Your task to perform on an android device: turn smart compose on in the gmail app Image 0: 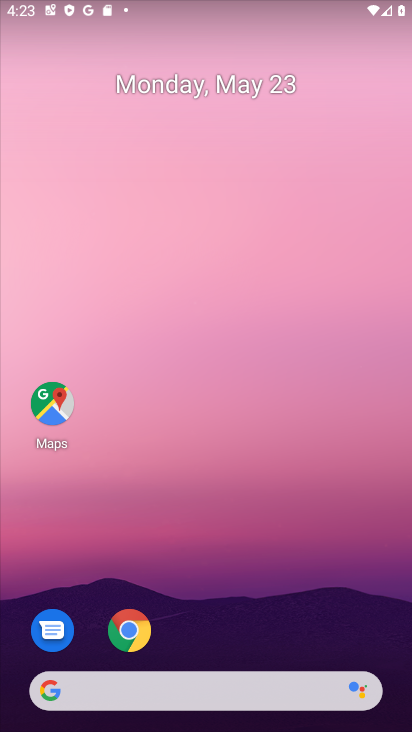
Step 0: press home button
Your task to perform on an android device: turn smart compose on in the gmail app Image 1: 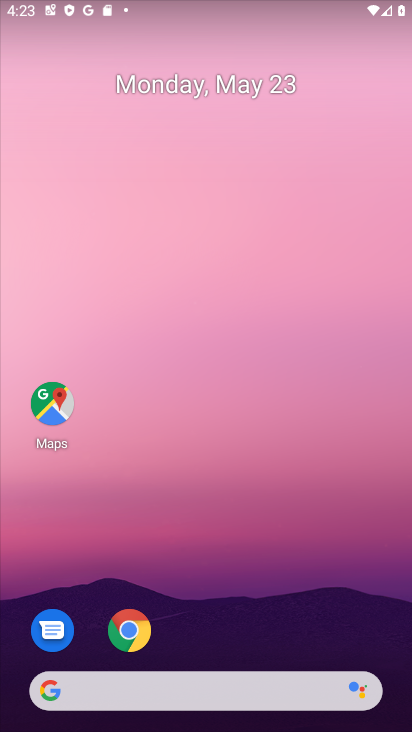
Step 1: drag from (217, 651) to (214, 23)
Your task to perform on an android device: turn smart compose on in the gmail app Image 2: 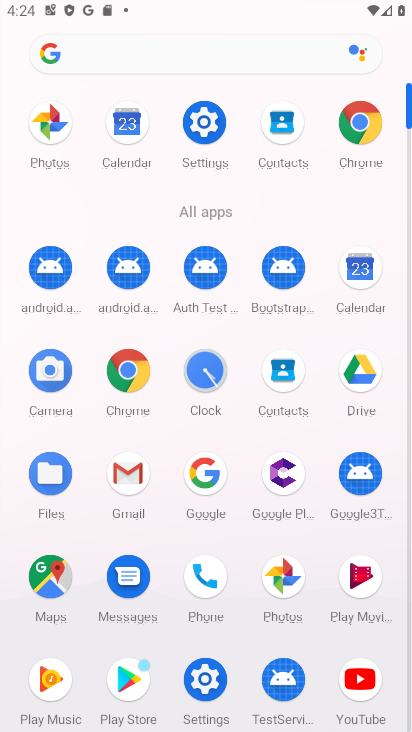
Step 2: click (126, 465)
Your task to perform on an android device: turn smart compose on in the gmail app Image 3: 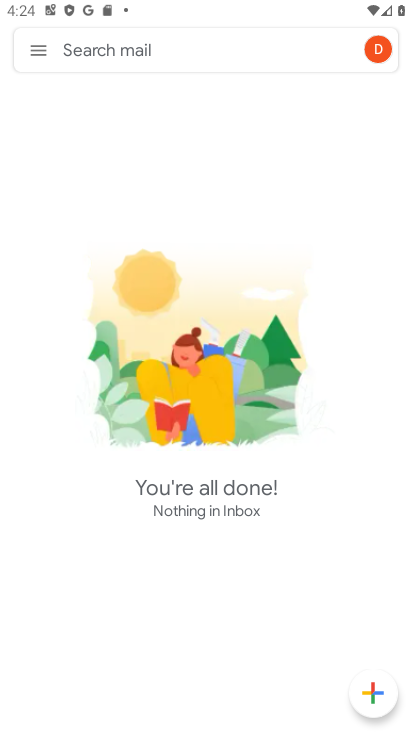
Step 3: click (29, 45)
Your task to perform on an android device: turn smart compose on in the gmail app Image 4: 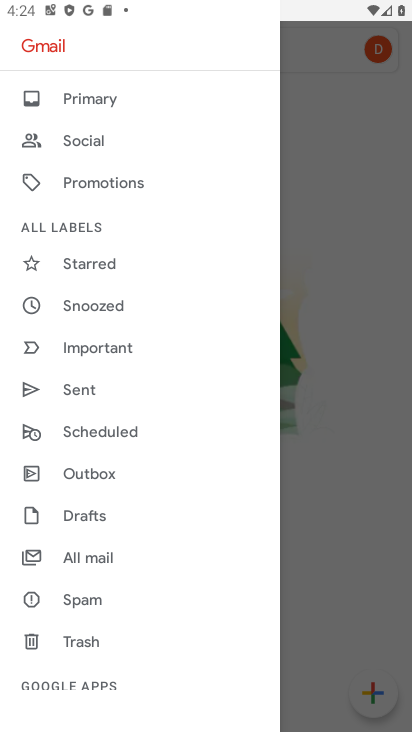
Step 4: drag from (163, 618) to (160, 128)
Your task to perform on an android device: turn smart compose on in the gmail app Image 5: 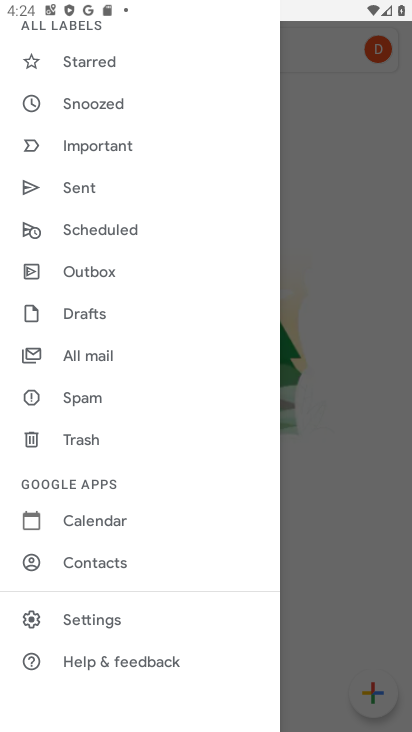
Step 5: click (128, 613)
Your task to perform on an android device: turn smart compose on in the gmail app Image 6: 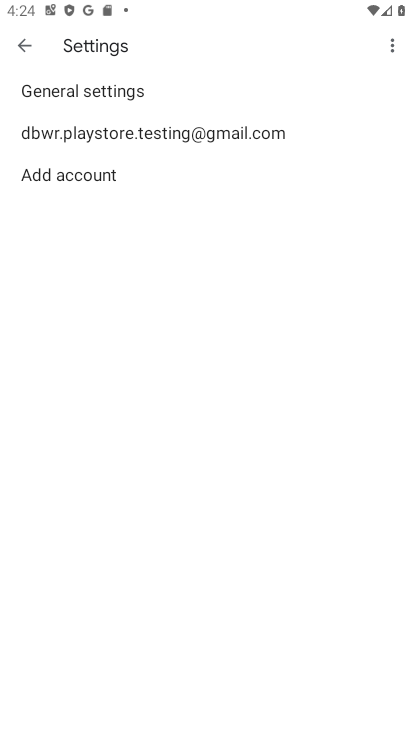
Step 6: click (259, 132)
Your task to perform on an android device: turn smart compose on in the gmail app Image 7: 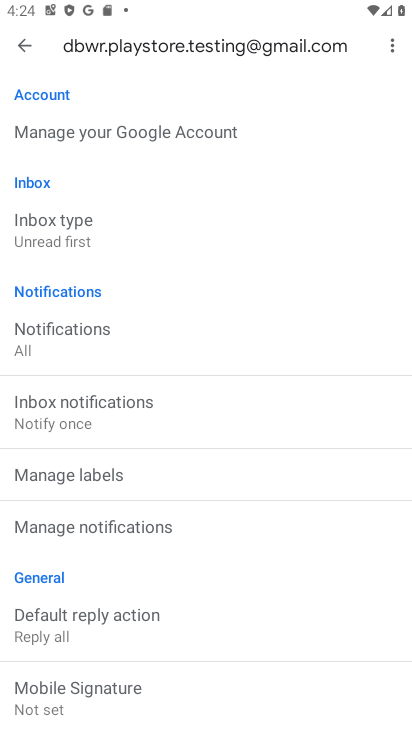
Step 7: task complete